Your task to perform on an android device: Open Google Chrome and click the shortcut for Amazon.com Image 0: 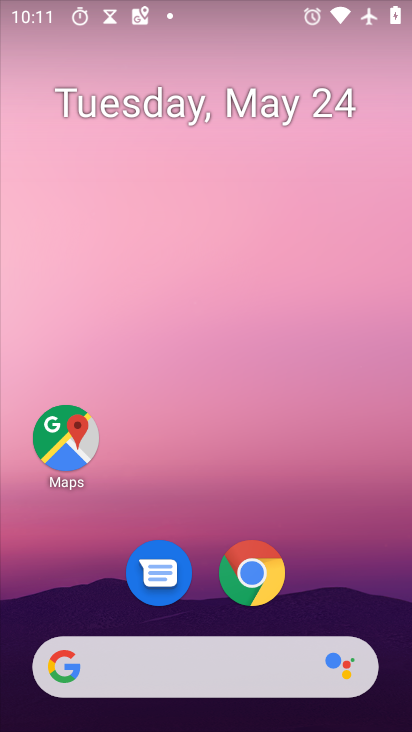
Step 0: drag from (331, 561) to (355, 102)
Your task to perform on an android device: Open Google Chrome and click the shortcut for Amazon.com Image 1: 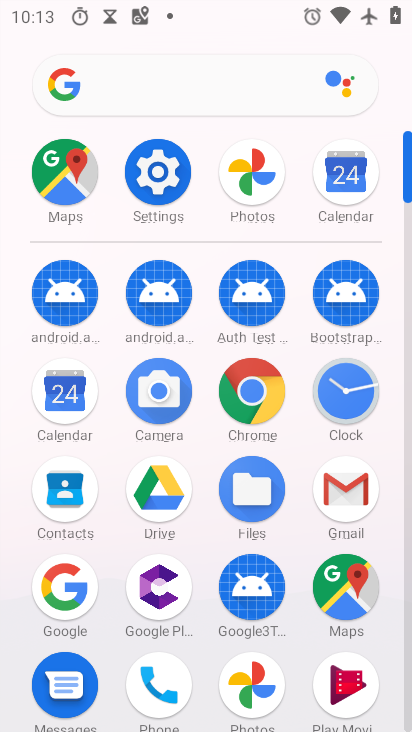
Step 1: click (264, 387)
Your task to perform on an android device: Open Google Chrome and click the shortcut for Amazon.com Image 2: 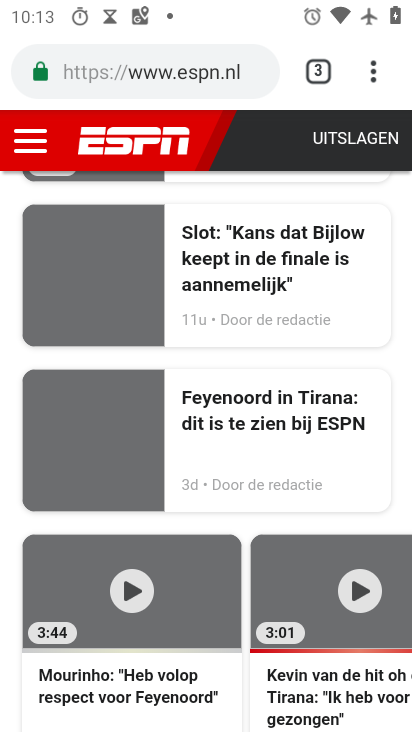
Step 2: click (206, 72)
Your task to perform on an android device: Open Google Chrome and click the shortcut for Amazon.com Image 3: 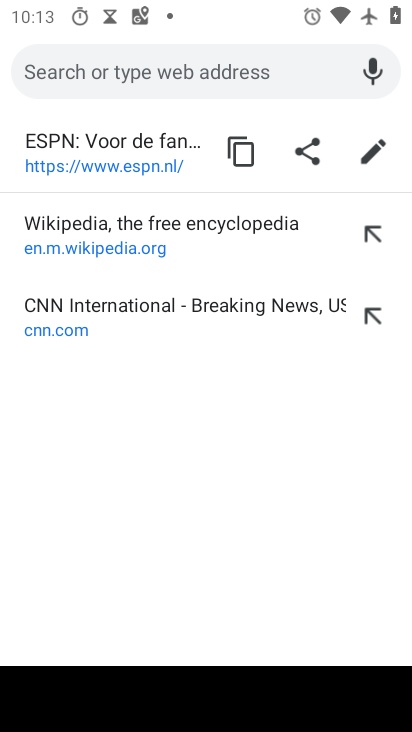
Step 3: type "amazon"
Your task to perform on an android device: Open Google Chrome and click the shortcut for Amazon.com Image 4: 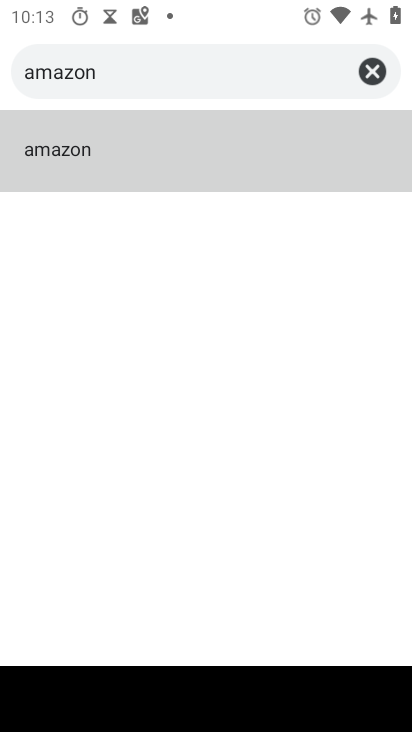
Step 4: click (91, 166)
Your task to perform on an android device: Open Google Chrome and click the shortcut for Amazon.com Image 5: 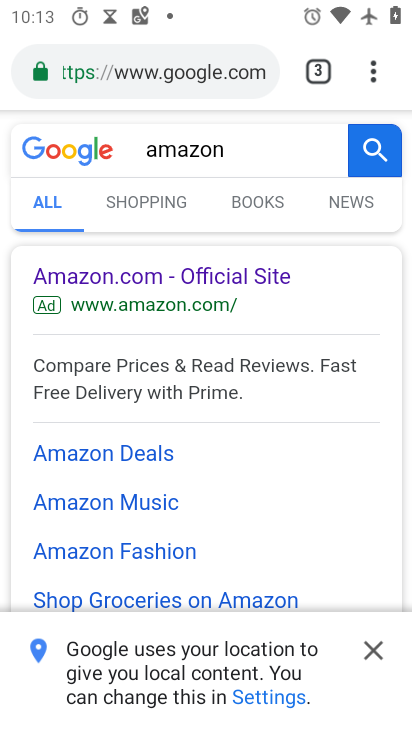
Step 5: click (136, 293)
Your task to perform on an android device: Open Google Chrome and click the shortcut for Amazon.com Image 6: 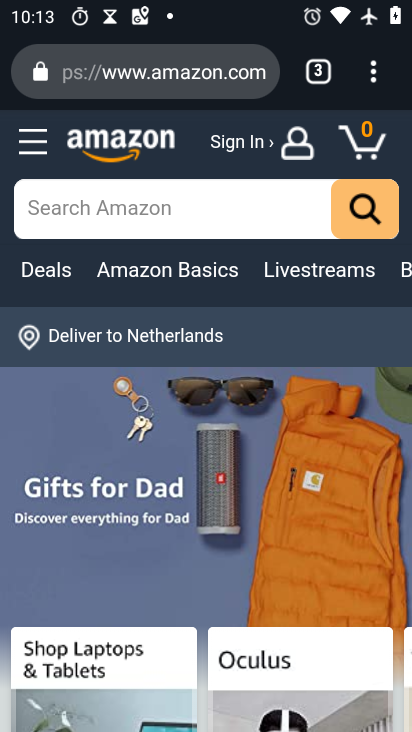
Step 6: task complete